Your task to perform on an android device: add a contact in the contacts app Image 0: 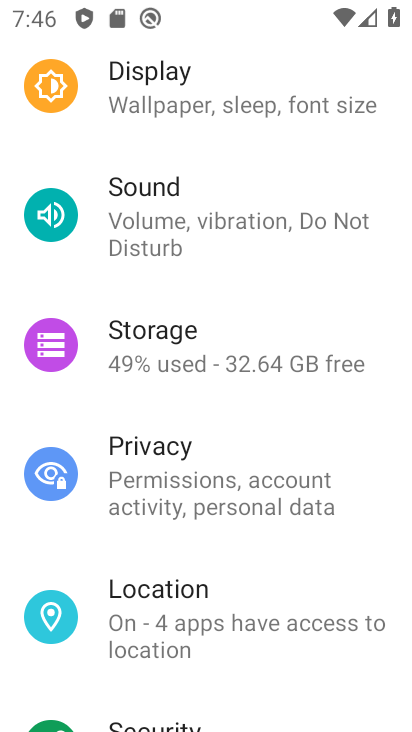
Step 0: drag from (273, 555) to (232, 133)
Your task to perform on an android device: add a contact in the contacts app Image 1: 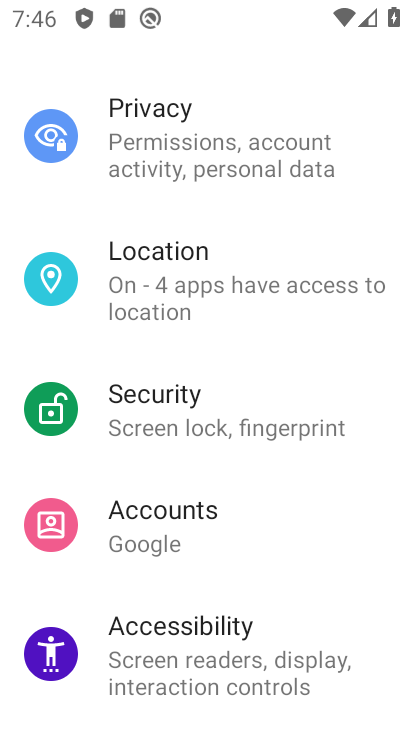
Step 1: drag from (278, 559) to (257, 195)
Your task to perform on an android device: add a contact in the contacts app Image 2: 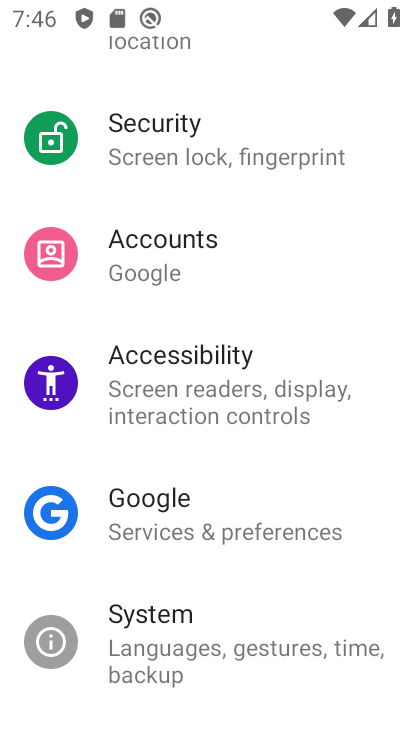
Step 2: press back button
Your task to perform on an android device: add a contact in the contacts app Image 3: 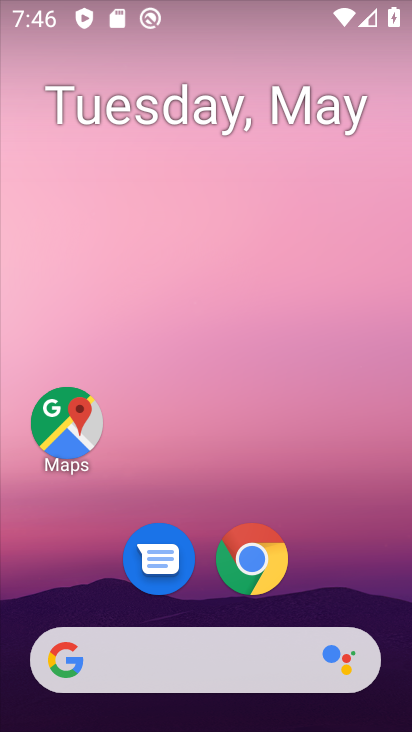
Step 3: drag from (345, 578) to (203, 210)
Your task to perform on an android device: add a contact in the contacts app Image 4: 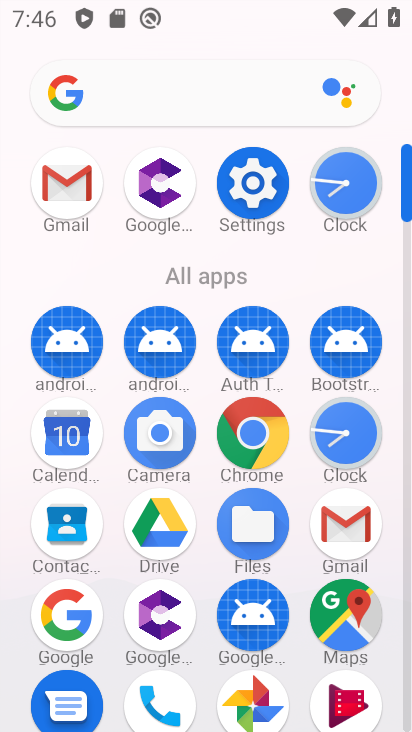
Step 4: click (58, 541)
Your task to perform on an android device: add a contact in the contacts app Image 5: 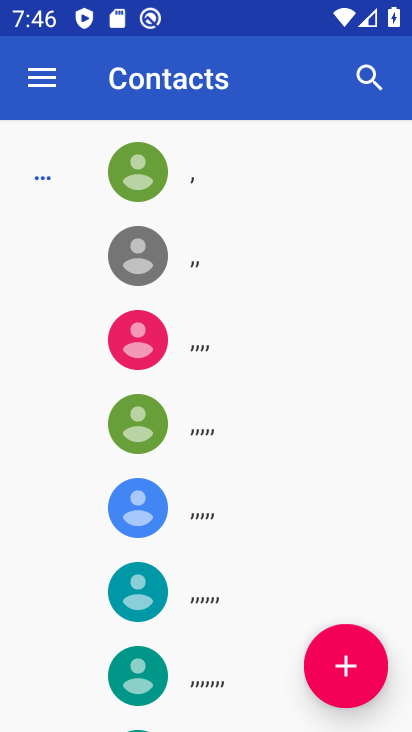
Step 5: click (352, 649)
Your task to perform on an android device: add a contact in the contacts app Image 6: 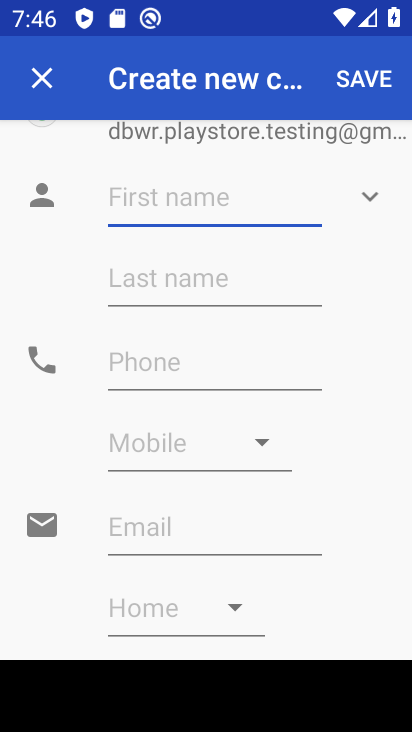
Step 6: type "rama"
Your task to perform on an android device: add a contact in the contacts app Image 7: 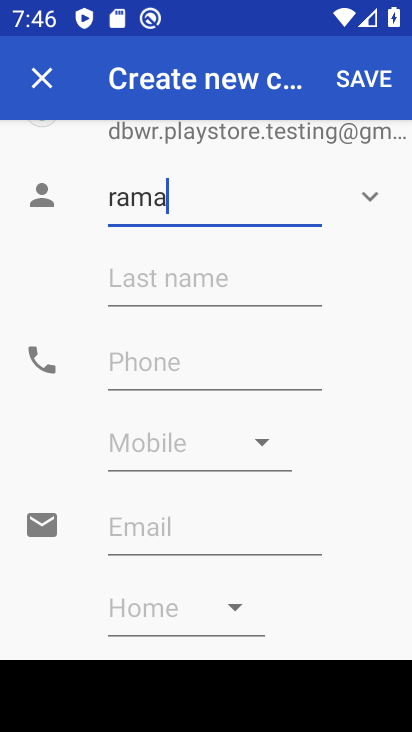
Step 7: click (130, 366)
Your task to perform on an android device: add a contact in the contacts app Image 8: 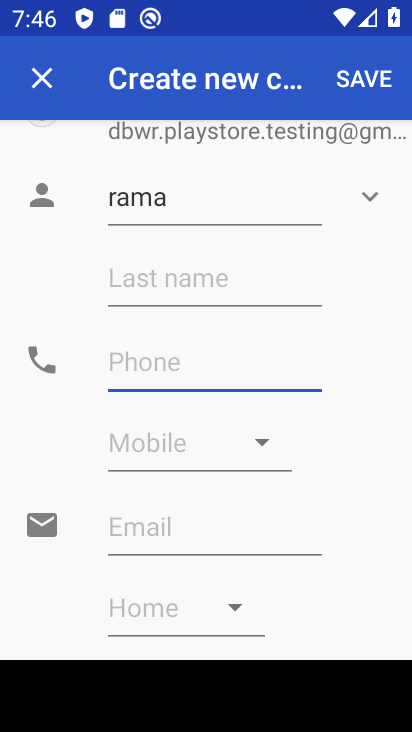
Step 8: type "9878876587"
Your task to perform on an android device: add a contact in the contacts app Image 9: 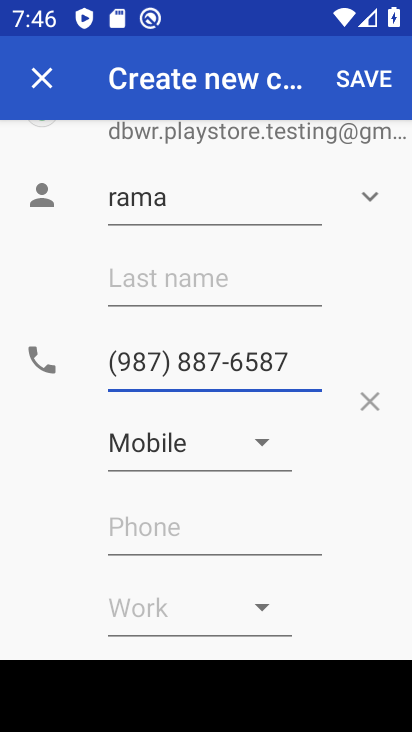
Step 9: click (370, 86)
Your task to perform on an android device: add a contact in the contacts app Image 10: 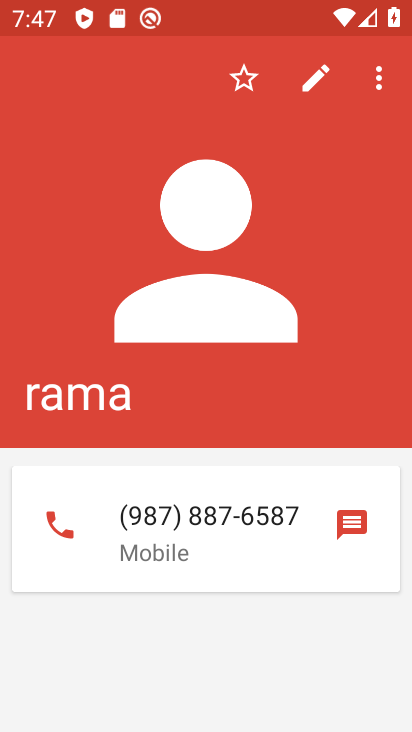
Step 10: press back button
Your task to perform on an android device: add a contact in the contacts app Image 11: 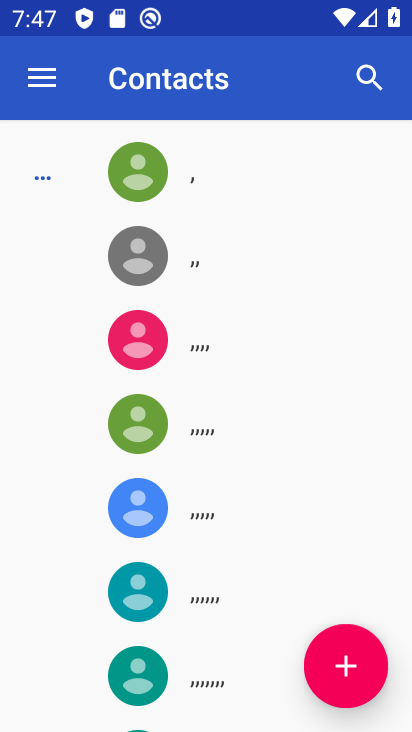
Step 11: click (353, 662)
Your task to perform on an android device: add a contact in the contacts app Image 12: 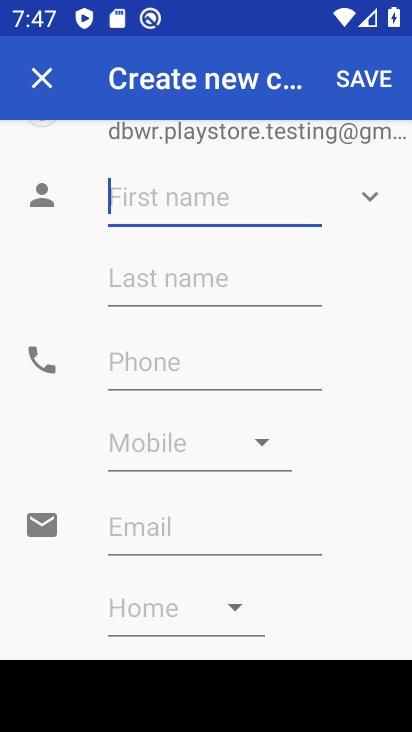
Step 12: click (166, 197)
Your task to perform on an android device: add a contact in the contacts app Image 13: 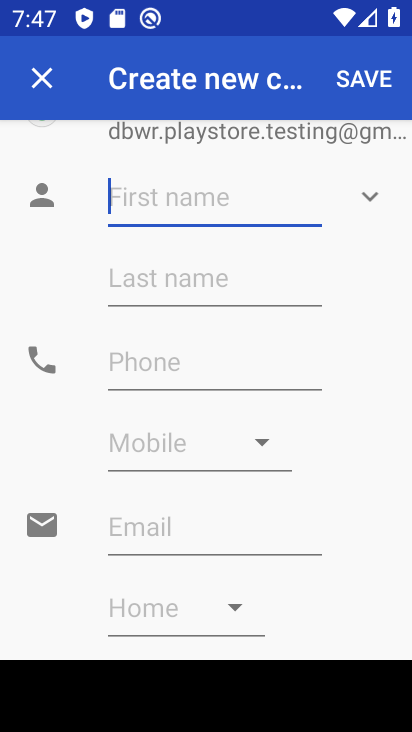
Step 13: type "munnu"
Your task to perform on an android device: add a contact in the contacts app Image 14: 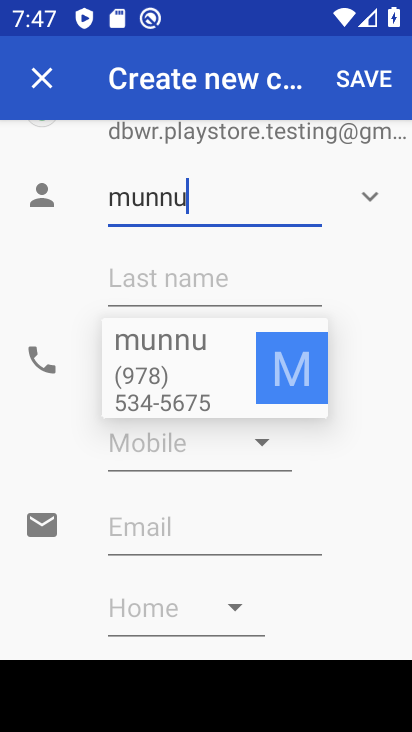
Step 14: click (167, 461)
Your task to perform on an android device: add a contact in the contacts app Image 15: 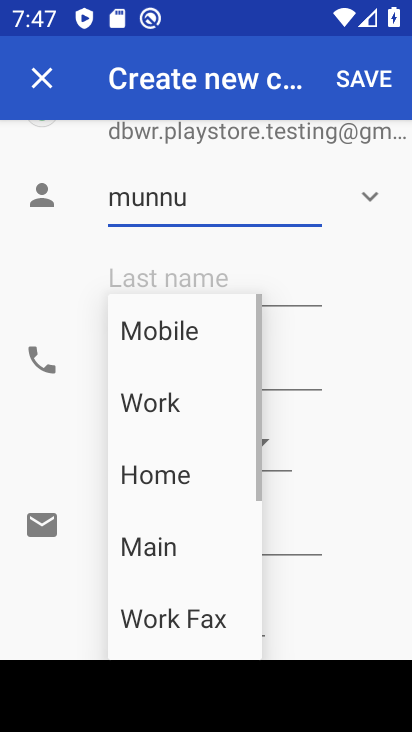
Step 15: click (85, 371)
Your task to perform on an android device: add a contact in the contacts app Image 16: 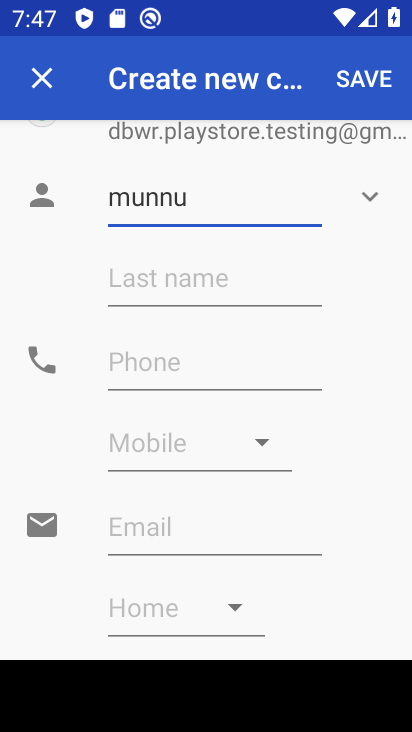
Step 16: click (125, 367)
Your task to perform on an android device: add a contact in the contacts app Image 17: 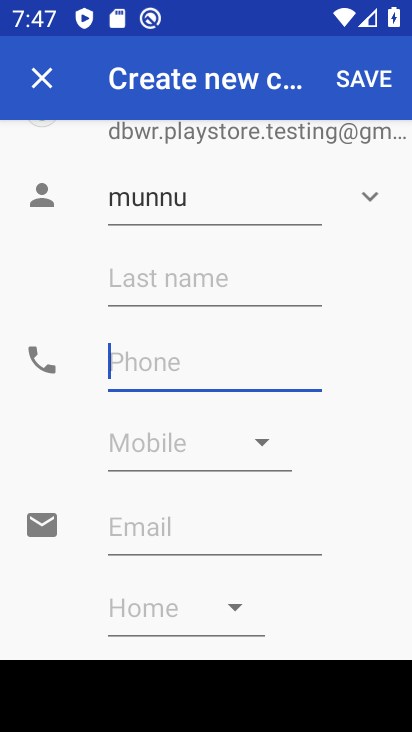
Step 17: click (359, 85)
Your task to perform on an android device: add a contact in the contacts app Image 18: 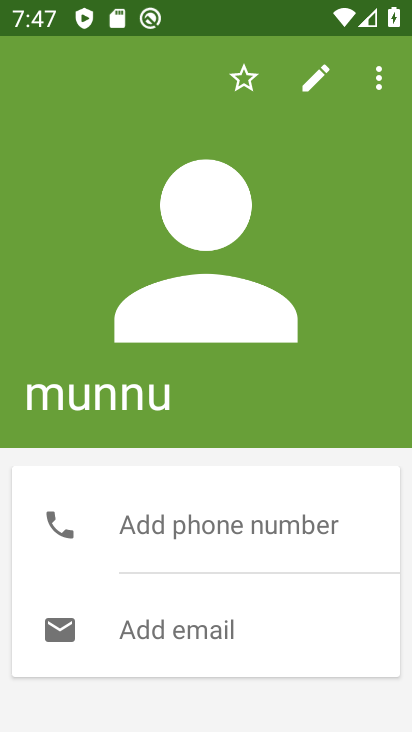
Step 18: press back button
Your task to perform on an android device: add a contact in the contacts app Image 19: 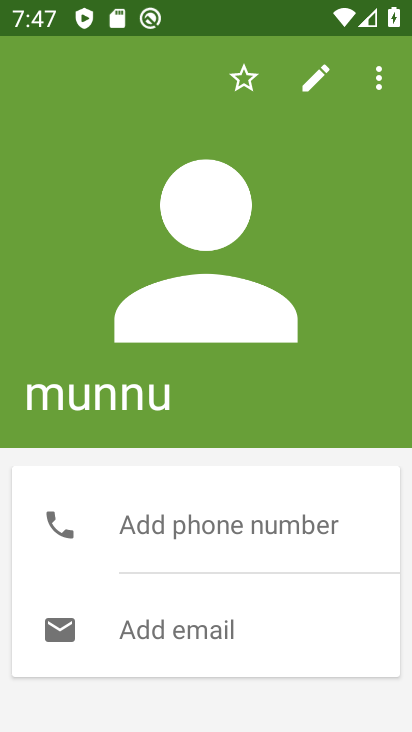
Step 19: type "9"
Your task to perform on an android device: add a contact in the contacts app Image 20: 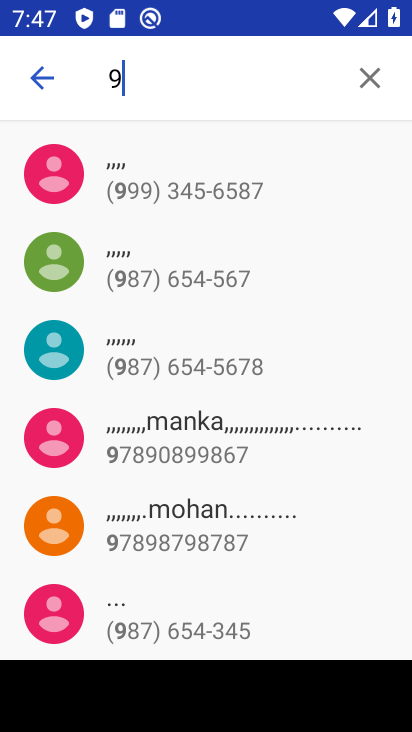
Step 20: type "989876787656"
Your task to perform on an android device: add a contact in the contacts app Image 21: 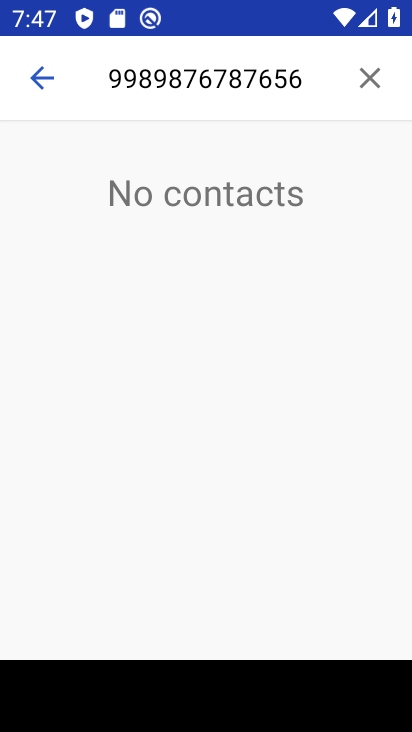
Step 21: click (32, 80)
Your task to perform on an android device: add a contact in the contacts app Image 22: 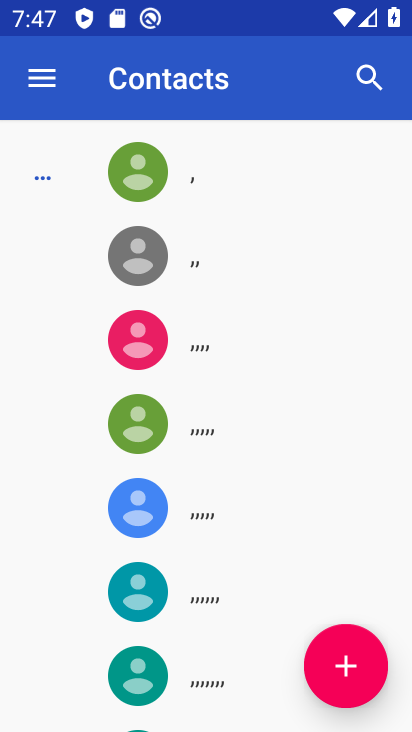
Step 22: click (348, 660)
Your task to perform on an android device: add a contact in the contacts app Image 23: 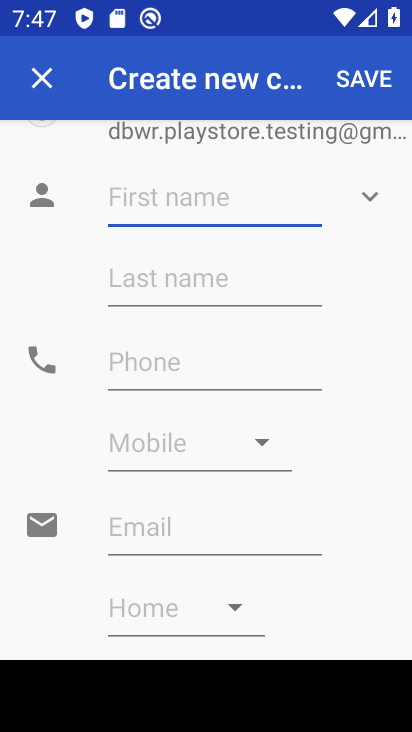
Step 23: type "rajani"
Your task to perform on an android device: add a contact in the contacts app Image 24: 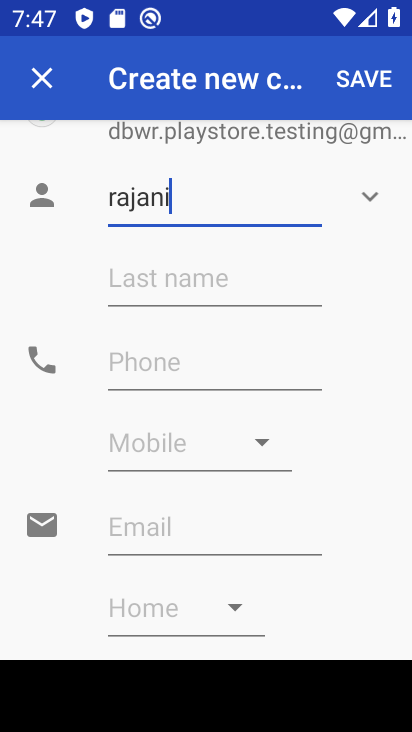
Step 24: click (128, 368)
Your task to perform on an android device: add a contact in the contacts app Image 25: 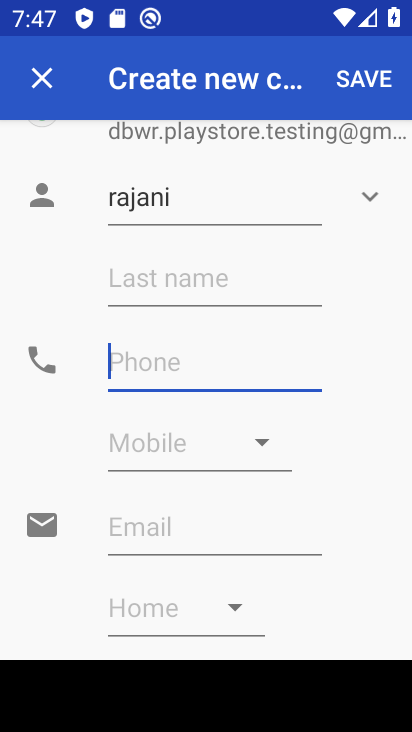
Step 25: click (128, 368)
Your task to perform on an android device: add a contact in the contacts app Image 26: 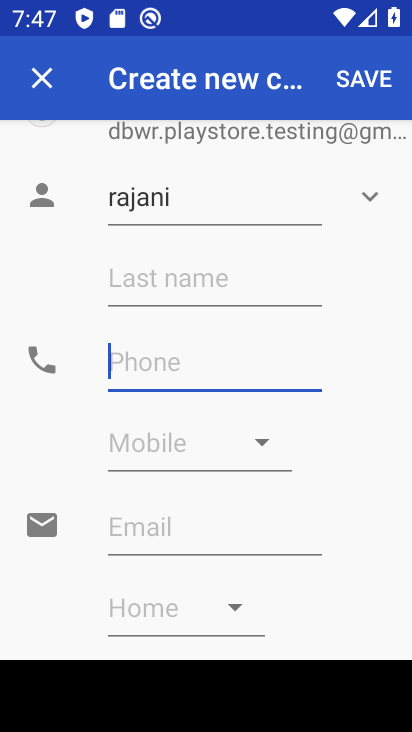
Step 26: click (128, 368)
Your task to perform on an android device: add a contact in the contacts app Image 27: 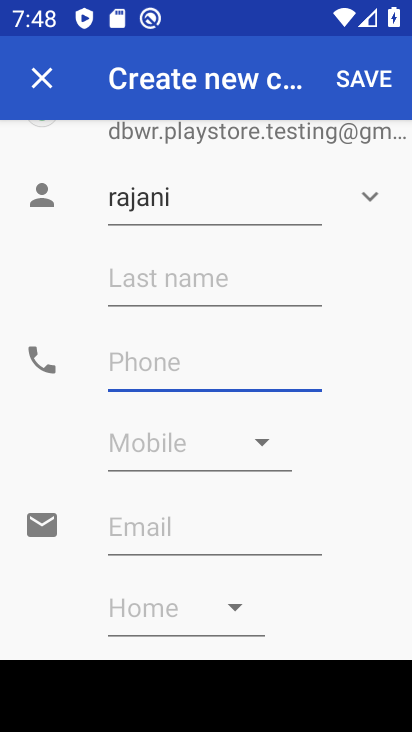
Step 27: click (128, 368)
Your task to perform on an android device: add a contact in the contacts app Image 28: 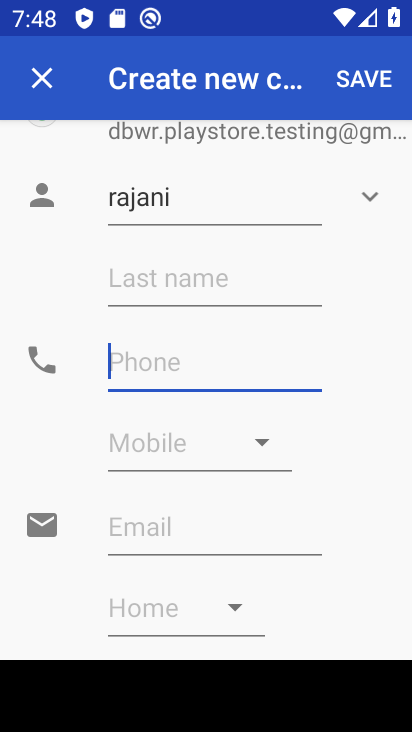
Step 28: type "9898756765"
Your task to perform on an android device: add a contact in the contacts app Image 29: 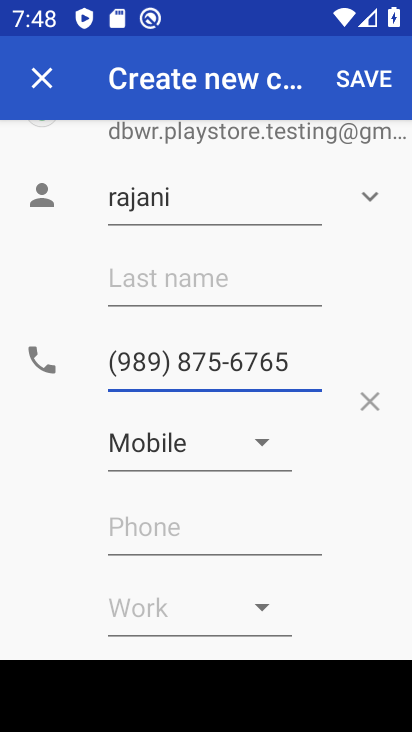
Step 29: click (358, 88)
Your task to perform on an android device: add a contact in the contacts app Image 30: 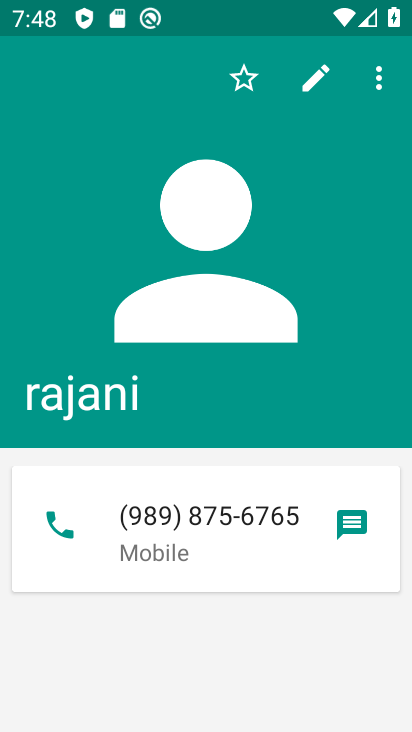
Step 30: task complete